Your task to perform on an android device: change notification settings in the gmail app Image 0: 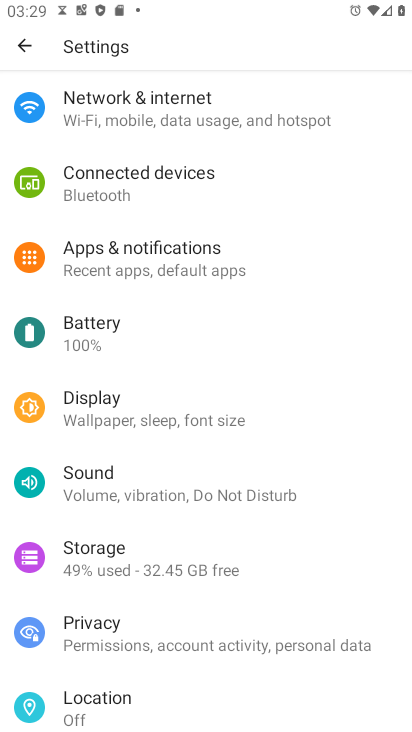
Step 0: press home button
Your task to perform on an android device: change notification settings in the gmail app Image 1: 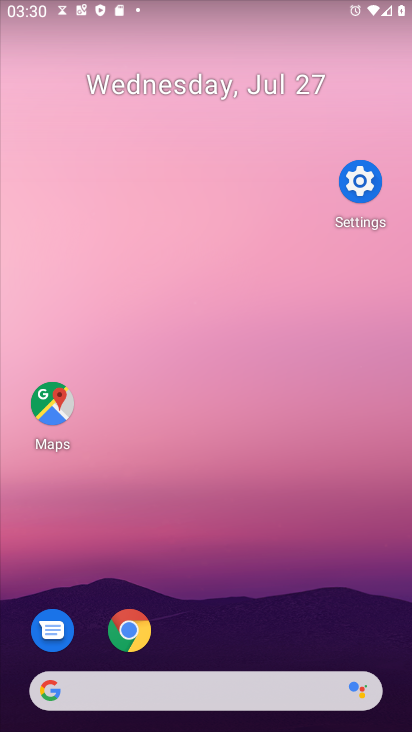
Step 1: click (168, 152)
Your task to perform on an android device: change notification settings in the gmail app Image 2: 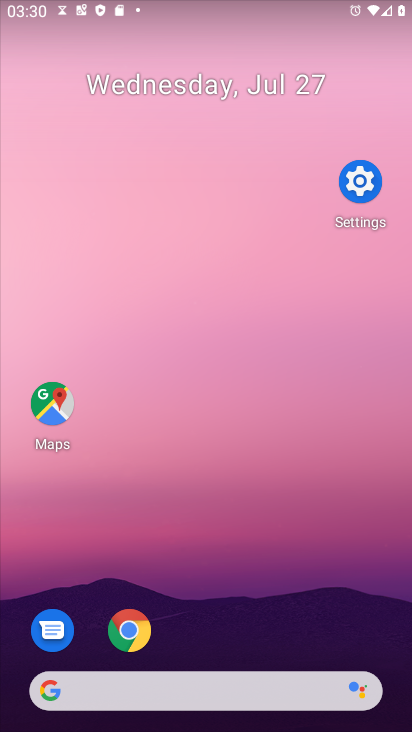
Step 2: drag from (240, 650) to (184, 71)
Your task to perform on an android device: change notification settings in the gmail app Image 3: 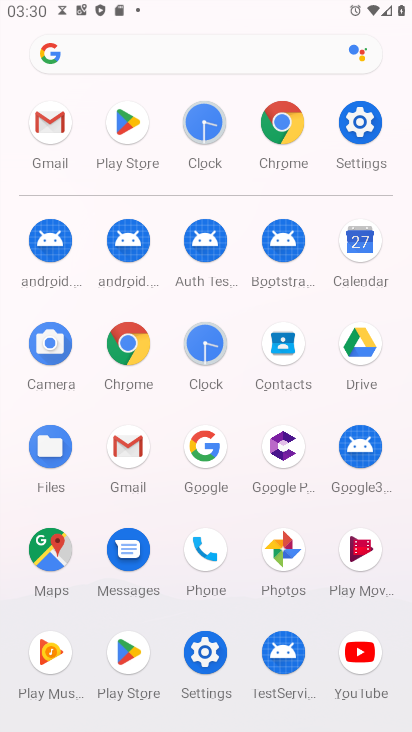
Step 3: click (49, 125)
Your task to perform on an android device: change notification settings in the gmail app Image 4: 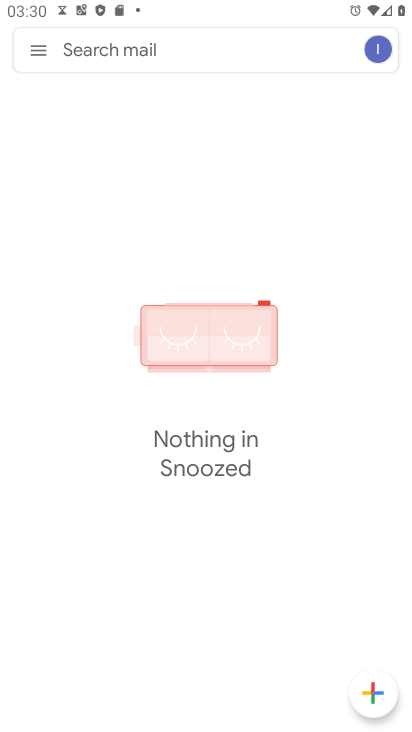
Step 4: click (36, 57)
Your task to perform on an android device: change notification settings in the gmail app Image 5: 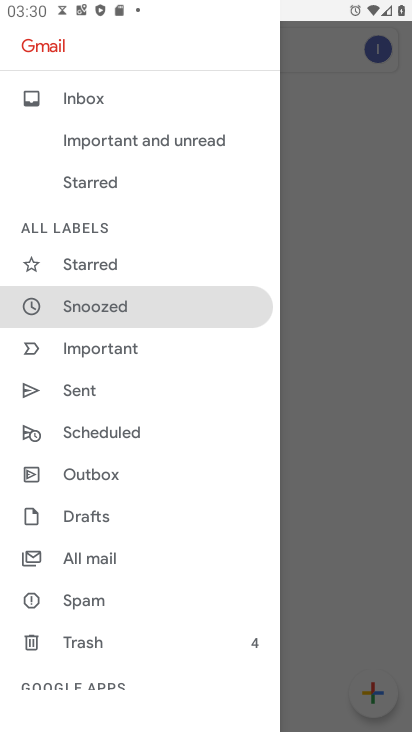
Step 5: drag from (187, 588) to (139, 53)
Your task to perform on an android device: change notification settings in the gmail app Image 6: 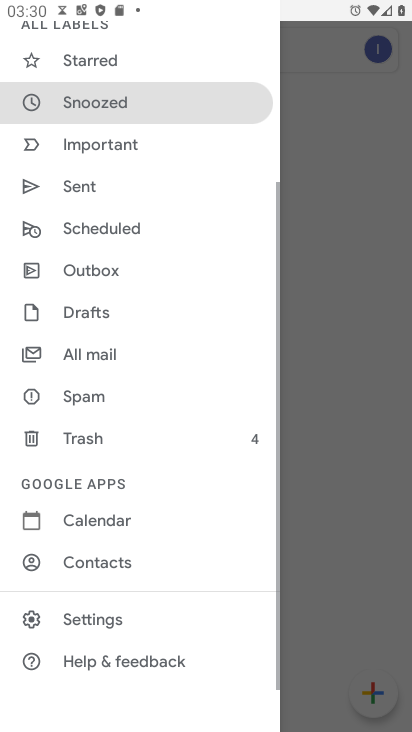
Step 6: click (89, 617)
Your task to perform on an android device: change notification settings in the gmail app Image 7: 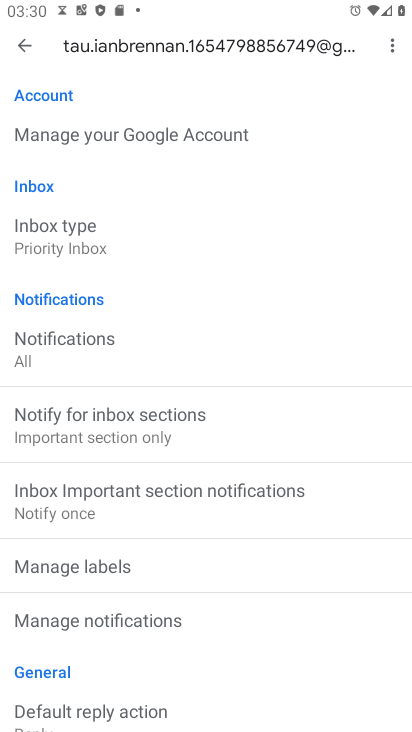
Step 7: click (59, 633)
Your task to perform on an android device: change notification settings in the gmail app Image 8: 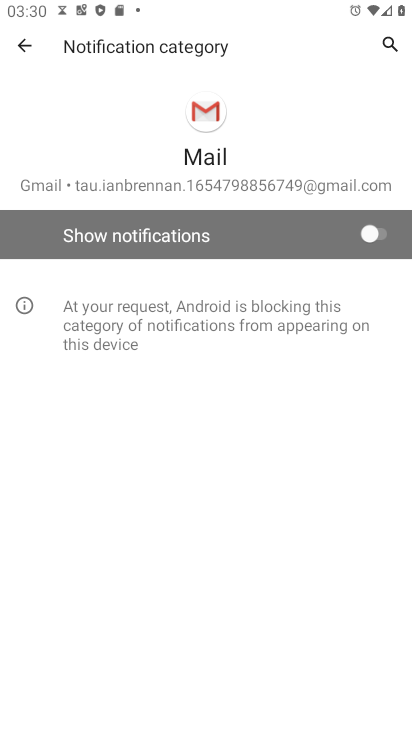
Step 8: click (367, 235)
Your task to perform on an android device: change notification settings in the gmail app Image 9: 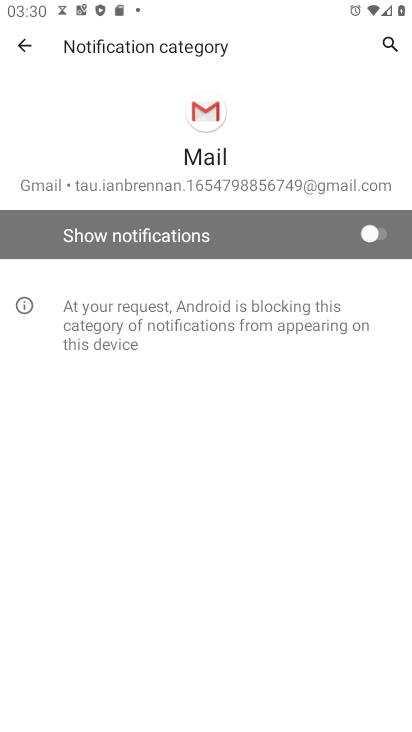
Step 9: click (367, 229)
Your task to perform on an android device: change notification settings in the gmail app Image 10: 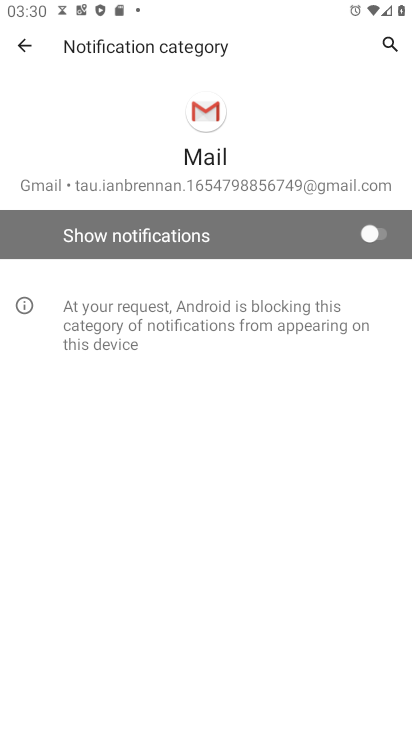
Step 10: click (364, 238)
Your task to perform on an android device: change notification settings in the gmail app Image 11: 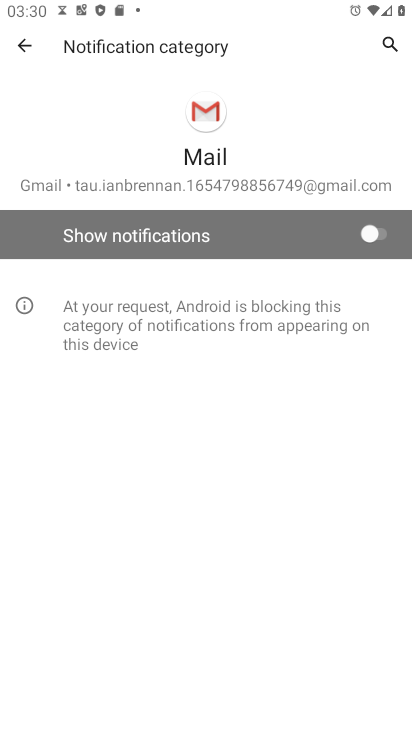
Step 11: click (364, 238)
Your task to perform on an android device: change notification settings in the gmail app Image 12: 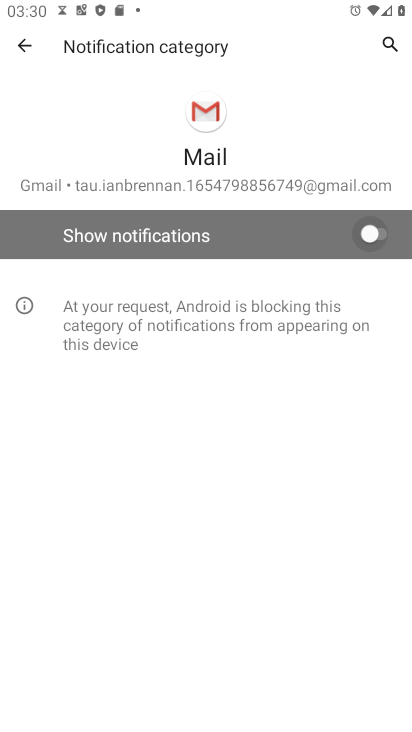
Step 12: click (364, 238)
Your task to perform on an android device: change notification settings in the gmail app Image 13: 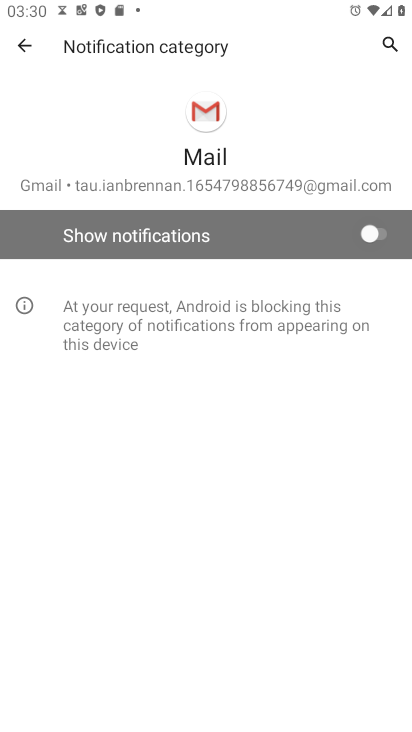
Step 13: click (364, 238)
Your task to perform on an android device: change notification settings in the gmail app Image 14: 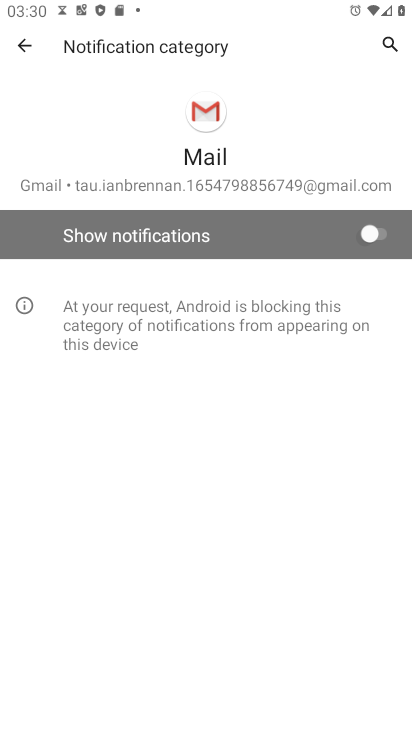
Step 14: click (364, 238)
Your task to perform on an android device: change notification settings in the gmail app Image 15: 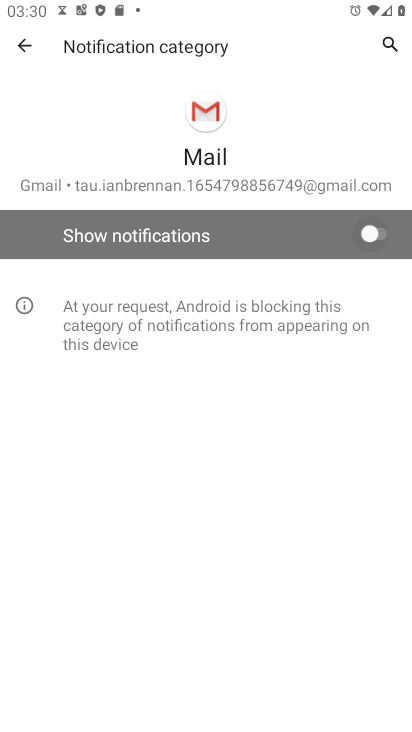
Step 15: click (364, 238)
Your task to perform on an android device: change notification settings in the gmail app Image 16: 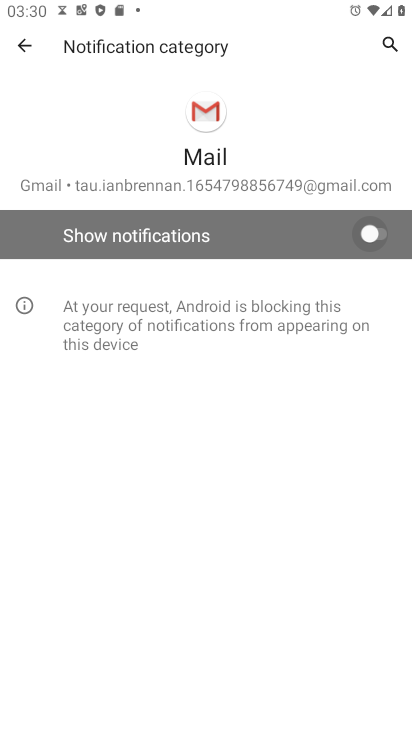
Step 16: click (364, 238)
Your task to perform on an android device: change notification settings in the gmail app Image 17: 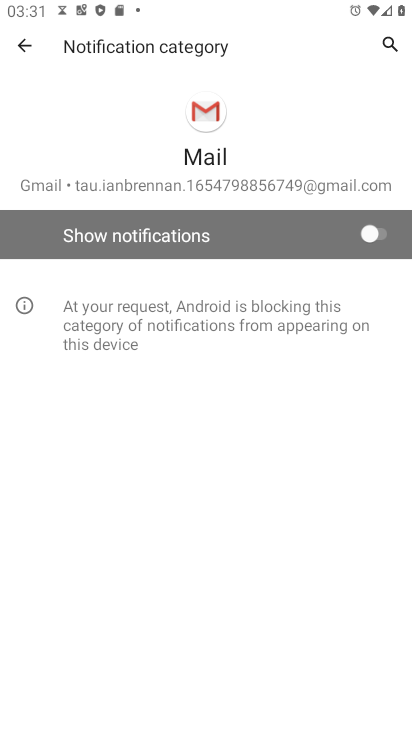
Step 17: task complete